Your task to perform on an android device: toggle location history Image 0: 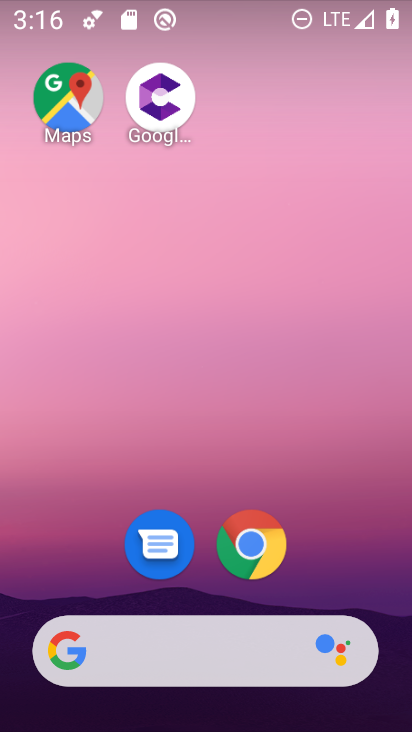
Step 0: drag from (383, 573) to (368, 322)
Your task to perform on an android device: toggle location history Image 1: 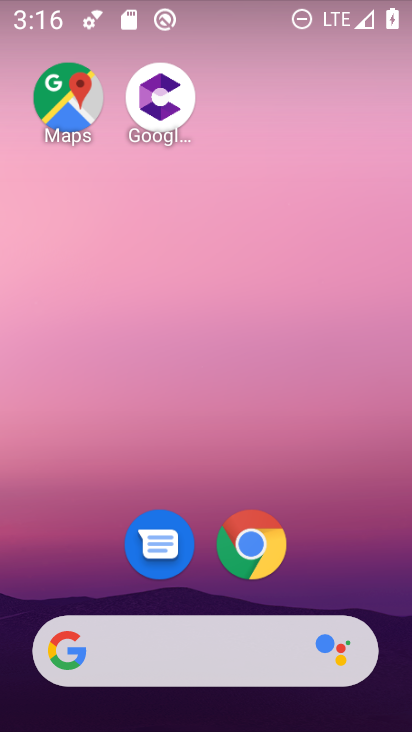
Step 1: drag from (359, 551) to (343, 370)
Your task to perform on an android device: toggle location history Image 2: 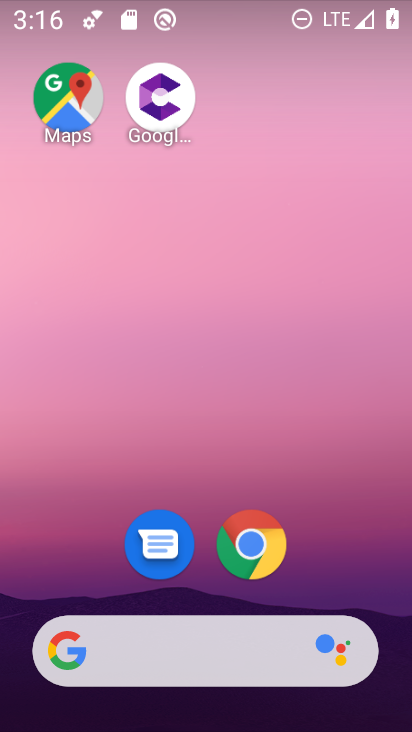
Step 2: drag from (350, 545) to (355, 163)
Your task to perform on an android device: toggle location history Image 3: 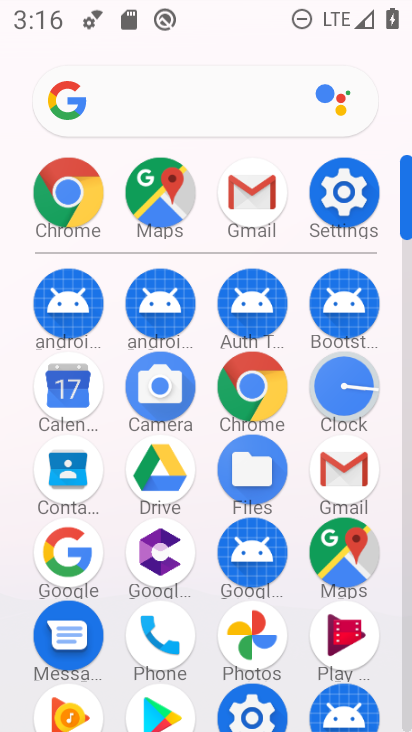
Step 3: click (343, 217)
Your task to perform on an android device: toggle location history Image 4: 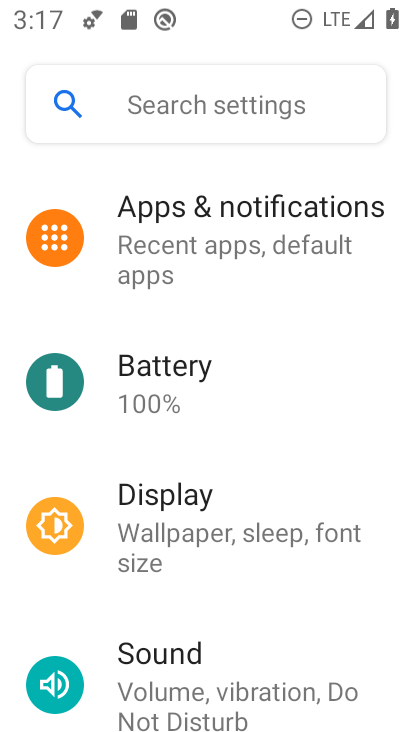
Step 4: drag from (302, 582) to (299, 444)
Your task to perform on an android device: toggle location history Image 5: 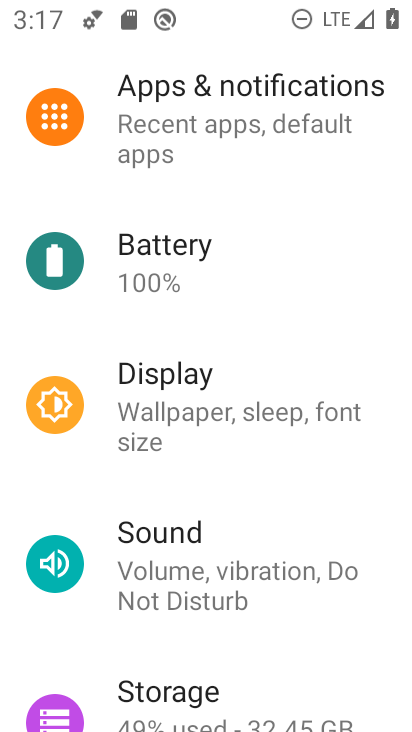
Step 5: drag from (302, 640) to (302, 525)
Your task to perform on an android device: toggle location history Image 6: 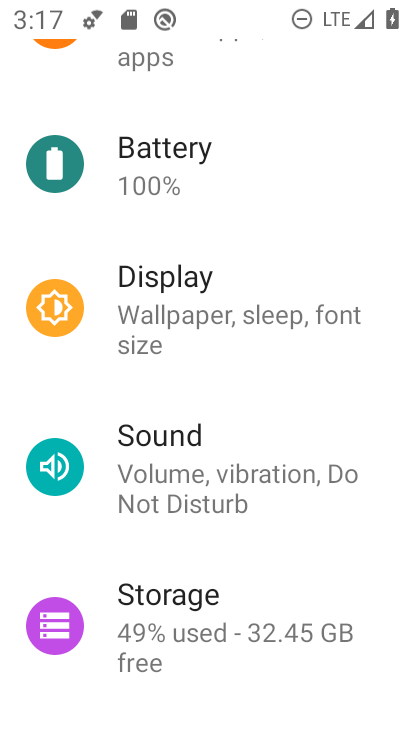
Step 6: drag from (292, 682) to (301, 528)
Your task to perform on an android device: toggle location history Image 7: 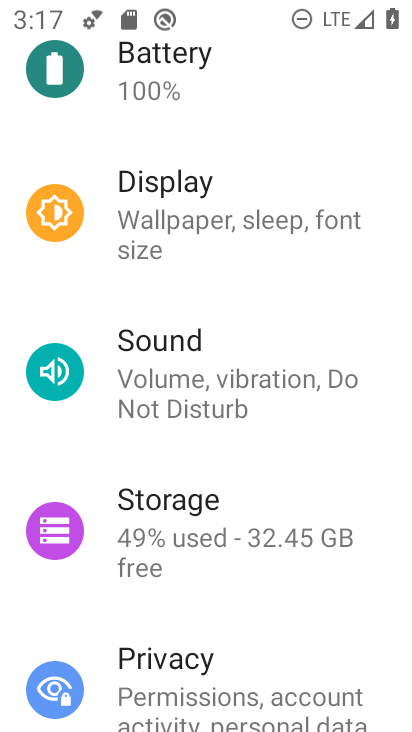
Step 7: drag from (315, 650) to (322, 475)
Your task to perform on an android device: toggle location history Image 8: 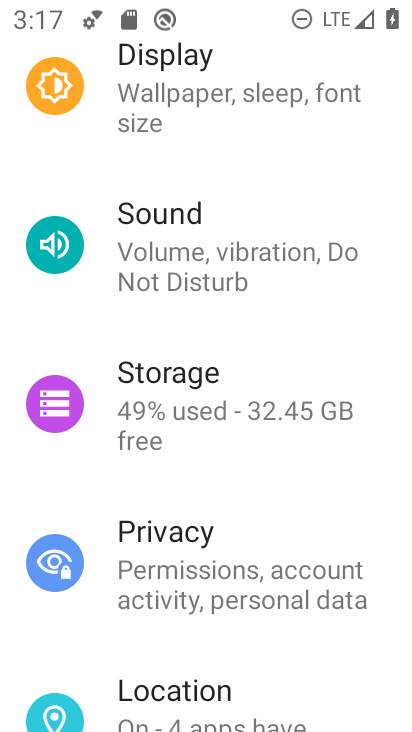
Step 8: drag from (320, 676) to (316, 549)
Your task to perform on an android device: toggle location history Image 9: 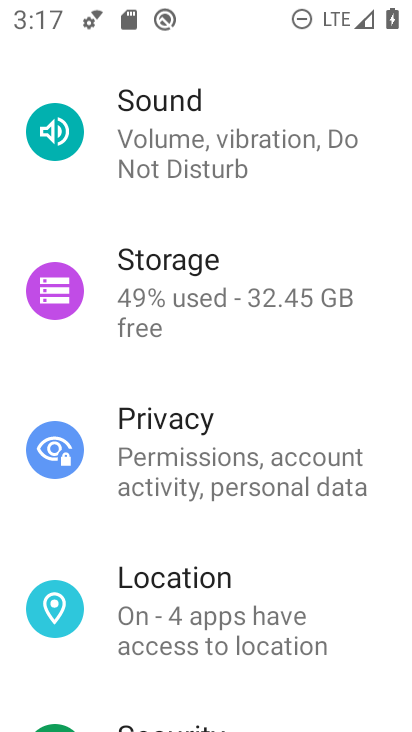
Step 9: drag from (343, 685) to (340, 563)
Your task to perform on an android device: toggle location history Image 10: 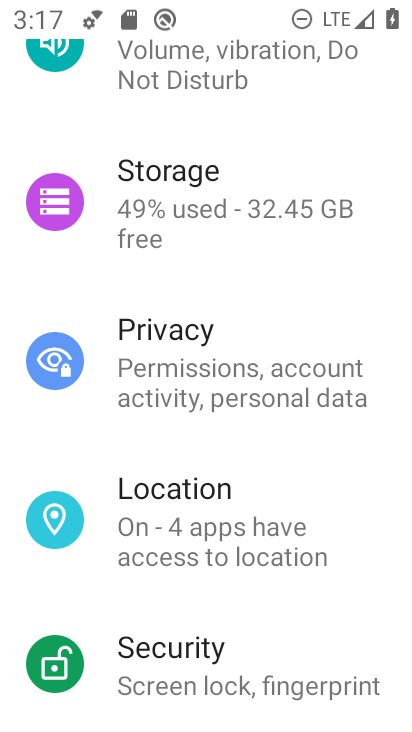
Step 10: drag from (312, 691) to (323, 577)
Your task to perform on an android device: toggle location history Image 11: 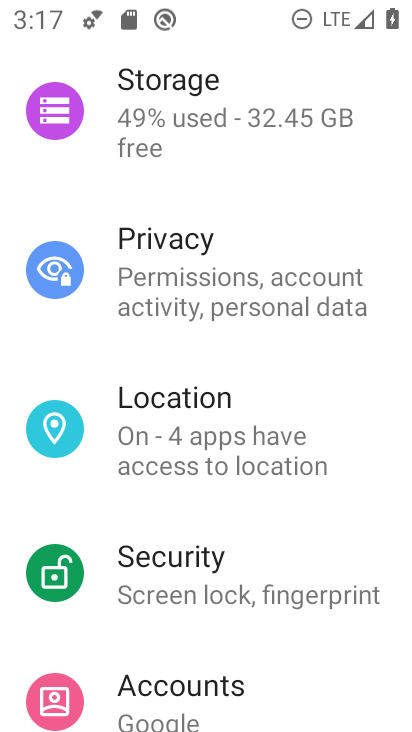
Step 11: drag from (343, 684) to (345, 533)
Your task to perform on an android device: toggle location history Image 12: 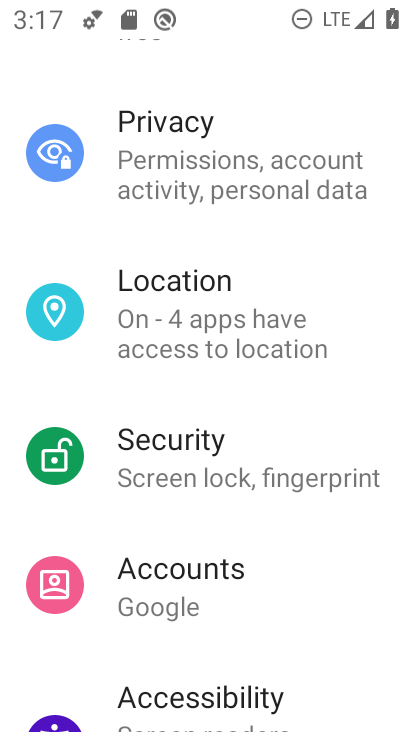
Step 12: drag from (310, 668) to (312, 570)
Your task to perform on an android device: toggle location history Image 13: 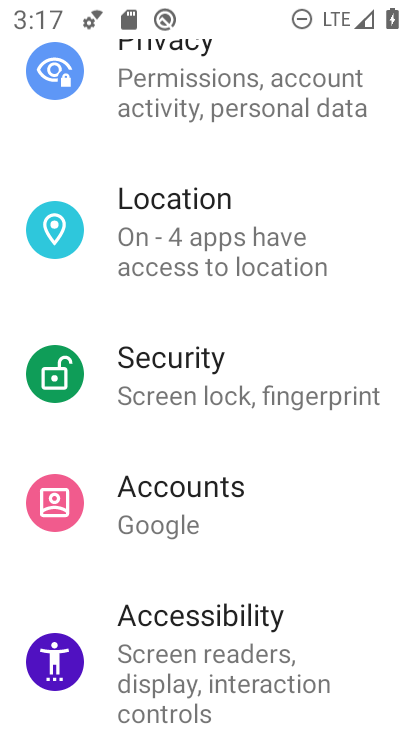
Step 13: drag from (327, 699) to (329, 578)
Your task to perform on an android device: toggle location history Image 14: 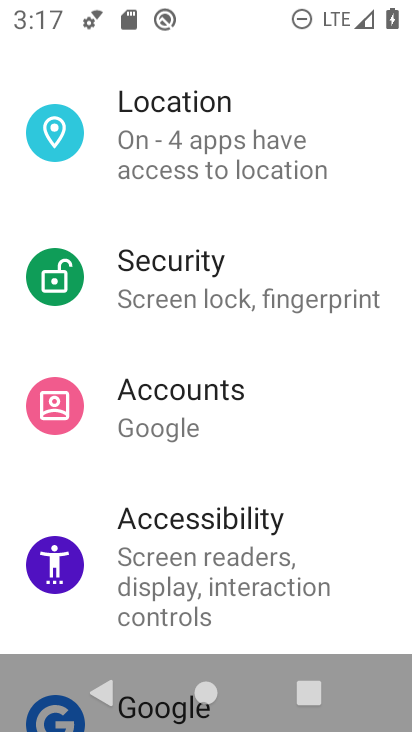
Step 14: drag from (339, 639) to (340, 531)
Your task to perform on an android device: toggle location history Image 15: 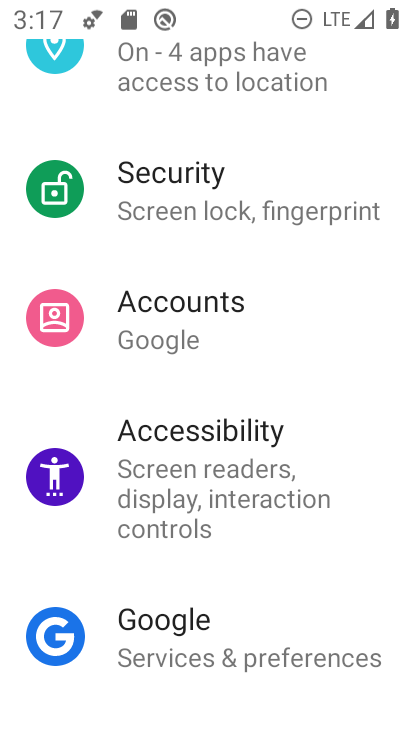
Step 15: drag from (349, 341) to (359, 415)
Your task to perform on an android device: toggle location history Image 16: 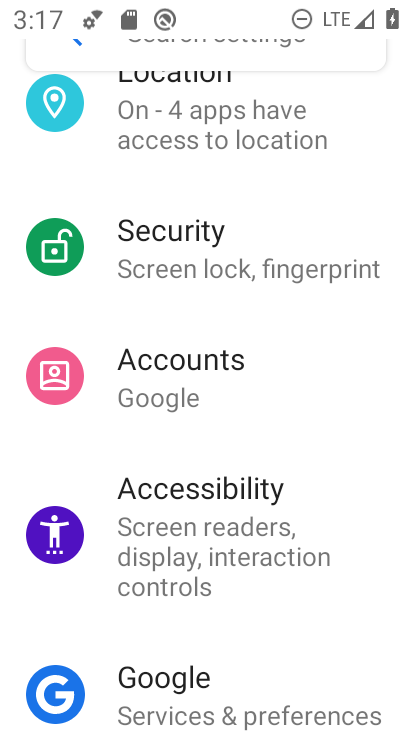
Step 16: click (250, 139)
Your task to perform on an android device: toggle location history Image 17: 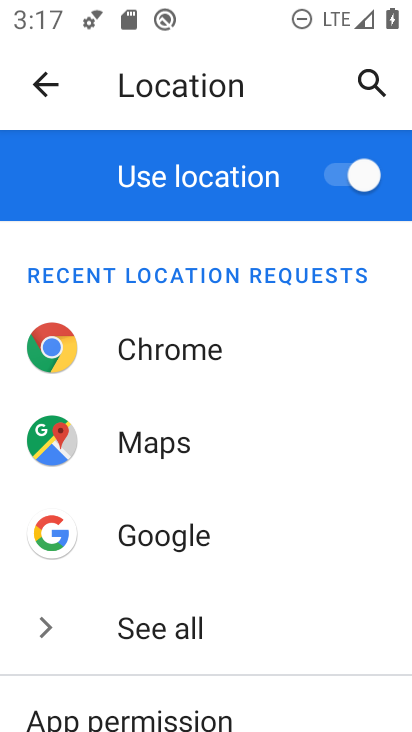
Step 17: drag from (306, 656) to (308, 520)
Your task to perform on an android device: toggle location history Image 18: 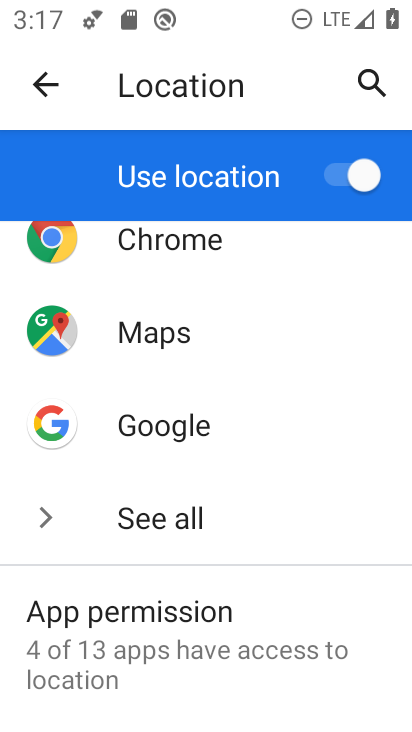
Step 18: drag from (307, 669) to (307, 565)
Your task to perform on an android device: toggle location history Image 19: 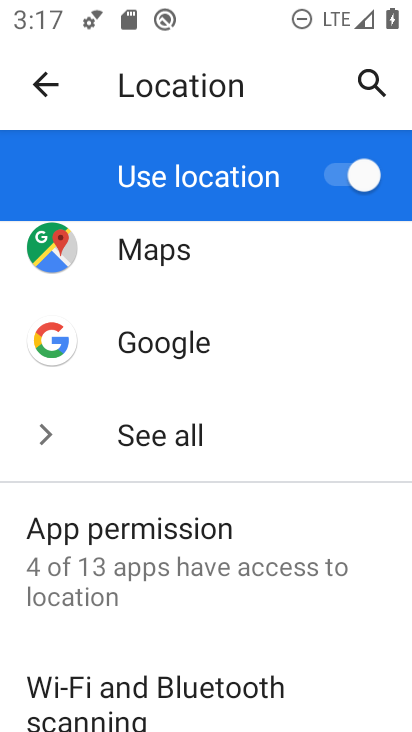
Step 19: drag from (321, 683) to (326, 578)
Your task to perform on an android device: toggle location history Image 20: 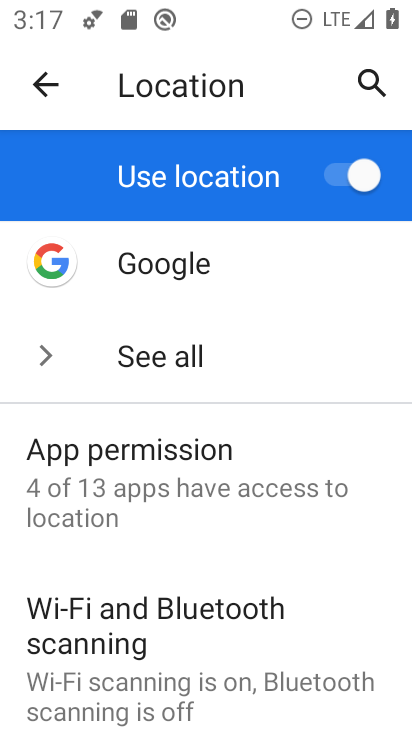
Step 20: drag from (339, 711) to (339, 582)
Your task to perform on an android device: toggle location history Image 21: 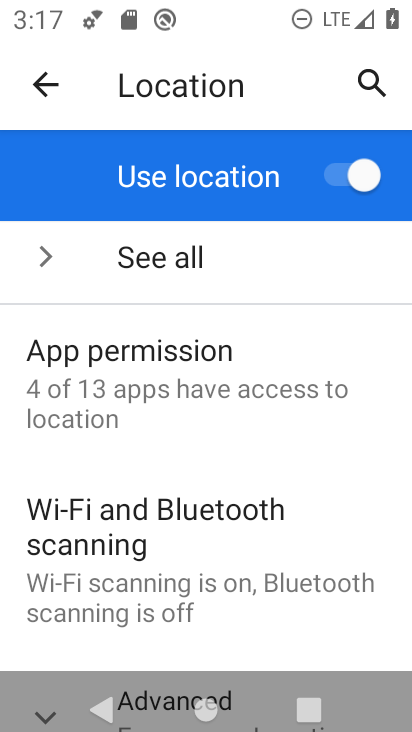
Step 21: drag from (322, 614) to (327, 510)
Your task to perform on an android device: toggle location history Image 22: 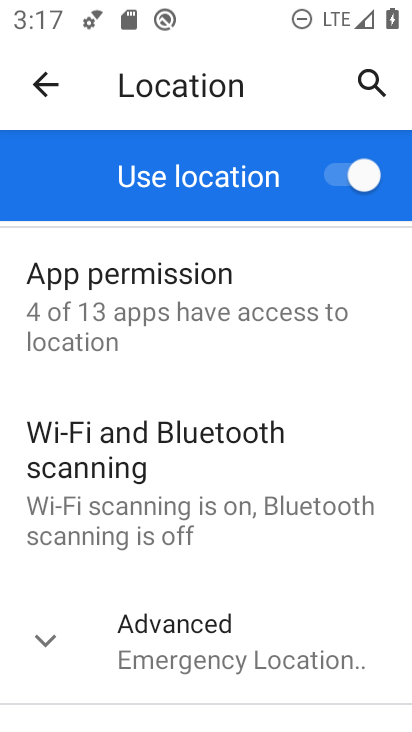
Step 22: drag from (315, 601) to (313, 489)
Your task to perform on an android device: toggle location history Image 23: 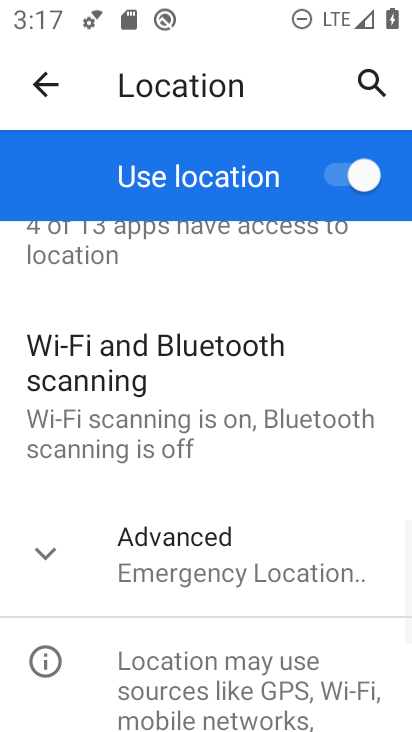
Step 23: click (286, 598)
Your task to perform on an android device: toggle location history Image 24: 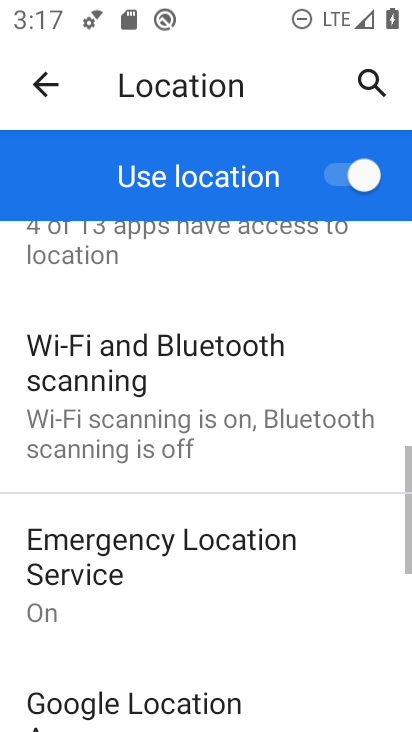
Step 24: drag from (279, 638) to (278, 509)
Your task to perform on an android device: toggle location history Image 25: 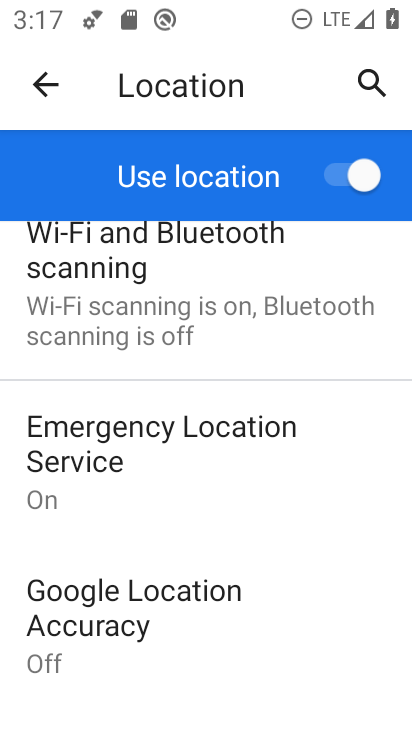
Step 25: drag from (263, 657) to (268, 537)
Your task to perform on an android device: toggle location history Image 26: 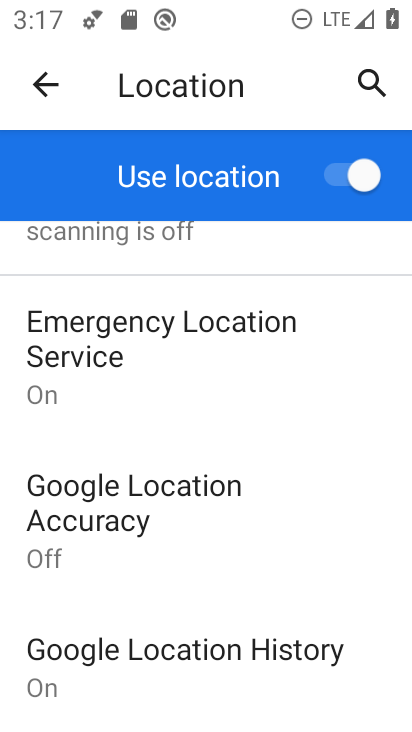
Step 26: drag from (247, 672) to (247, 546)
Your task to perform on an android device: toggle location history Image 27: 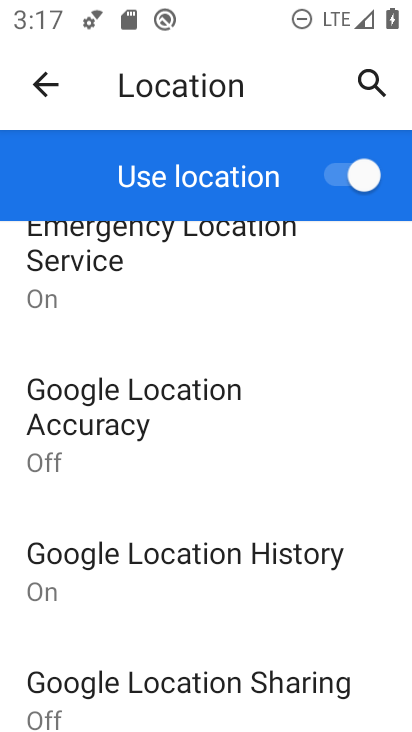
Step 27: click (241, 560)
Your task to perform on an android device: toggle location history Image 28: 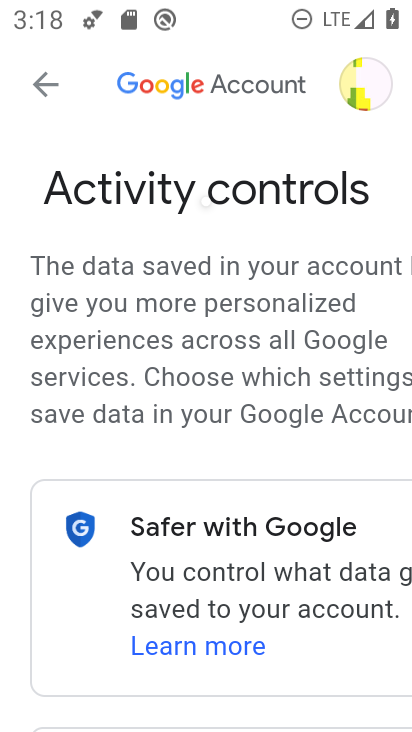
Step 28: drag from (266, 529) to (266, 407)
Your task to perform on an android device: toggle location history Image 29: 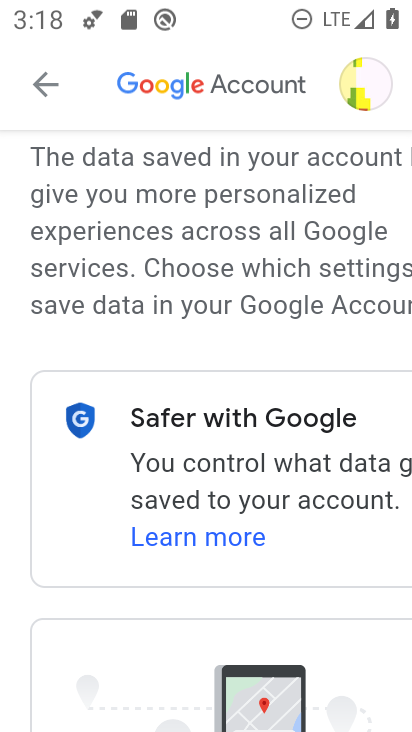
Step 29: drag from (260, 494) to (260, 426)
Your task to perform on an android device: toggle location history Image 30: 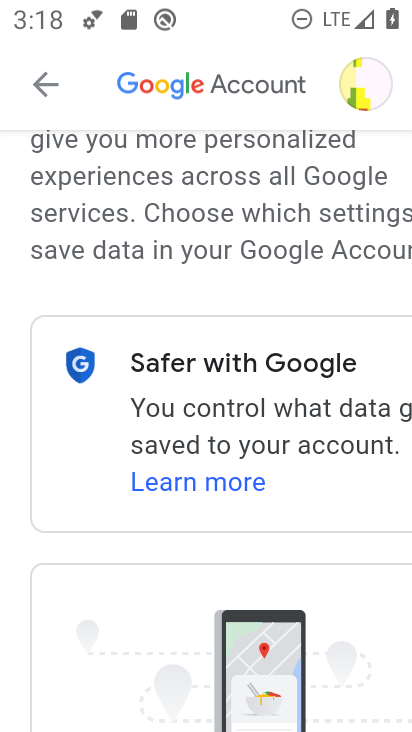
Step 30: drag from (184, 616) to (187, 468)
Your task to perform on an android device: toggle location history Image 31: 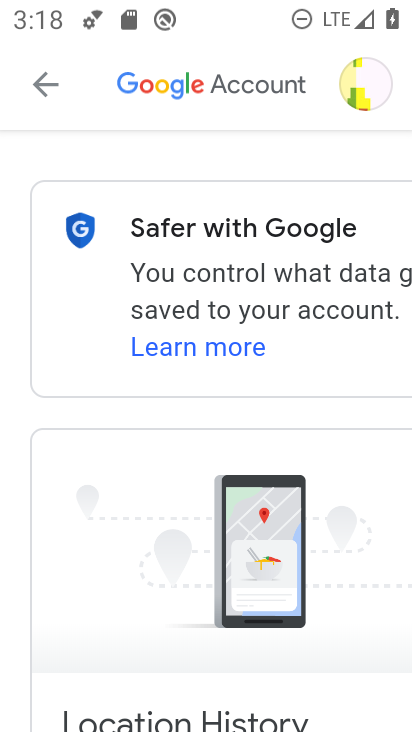
Step 31: drag from (157, 656) to (162, 492)
Your task to perform on an android device: toggle location history Image 32: 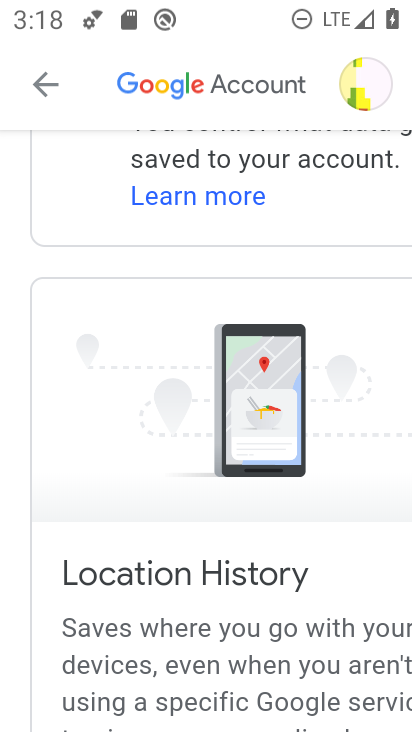
Step 32: drag from (179, 647) to (174, 504)
Your task to perform on an android device: toggle location history Image 33: 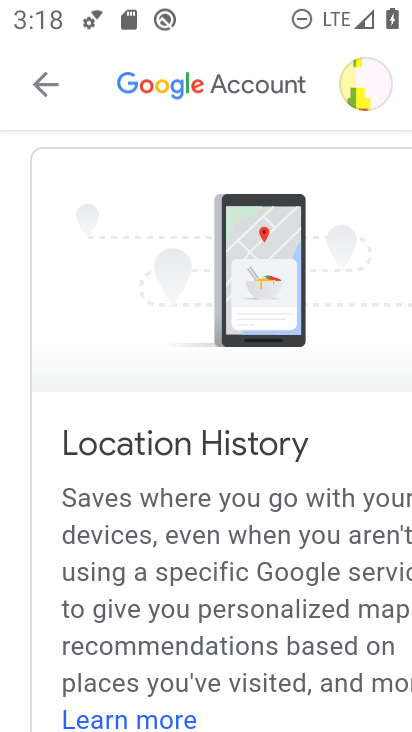
Step 33: drag from (201, 668) to (210, 509)
Your task to perform on an android device: toggle location history Image 34: 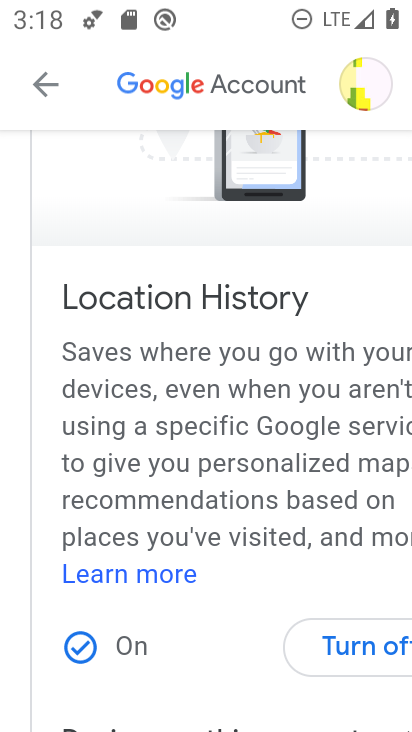
Step 34: click (355, 641)
Your task to perform on an android device: toggle location history Image 35: 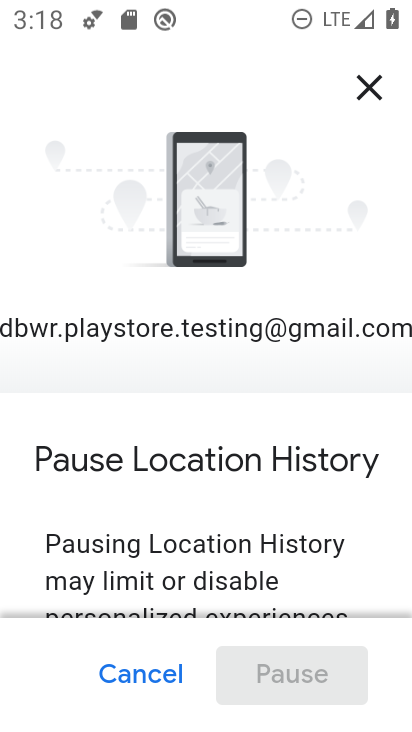
Step 35: drag from (319, 583) to (326, 425)
Your task to perform on an android device: toggle location history Image 36: 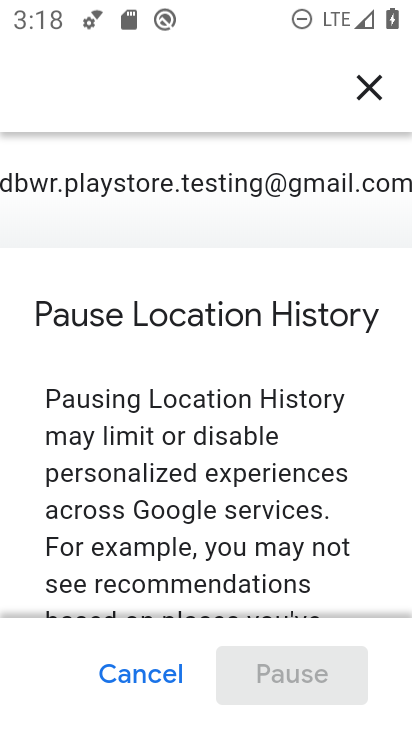
Step 36: drag from (339, 584) to (329, 465)
Your task to perform on an android device: toggle location history Image 37: 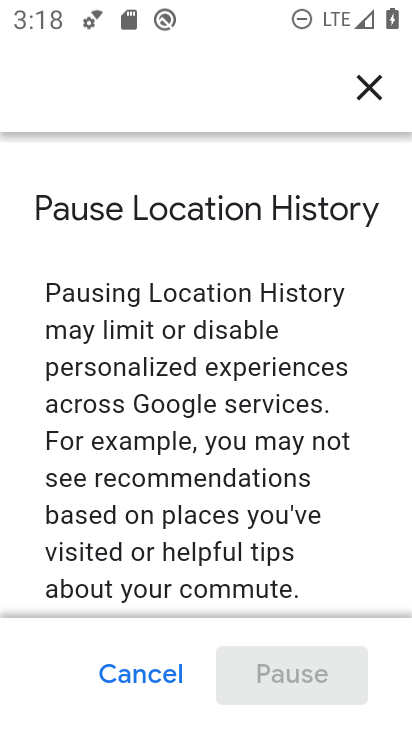
Step 37: drag from (320, 582) to (320, 462)
Your task to perform on an android device: toggle location history Image 38: 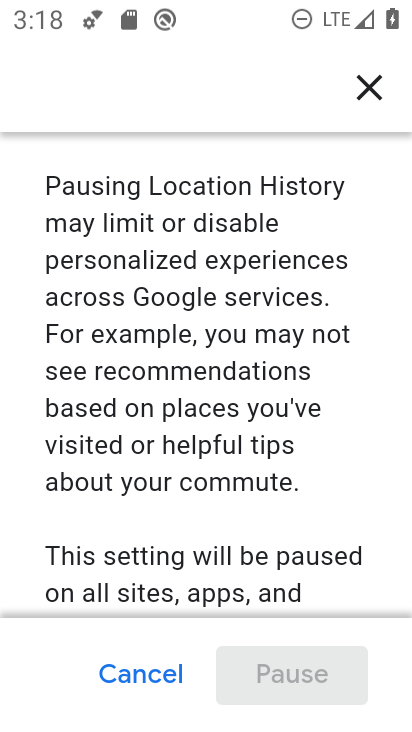
Step 38: drag from (321, 594) to (319, 483)
Your task to perform on an android device: toggle location history Image 39: 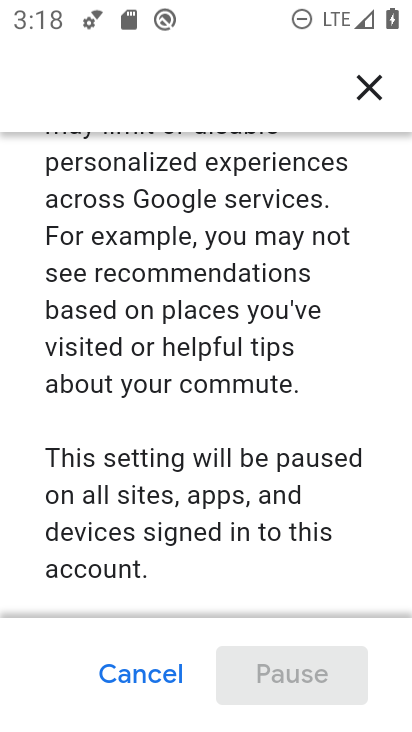
Step 39: drag from (326, 589) to (326, 479)
Your task to perform on an android device: toggle location history Image 40: 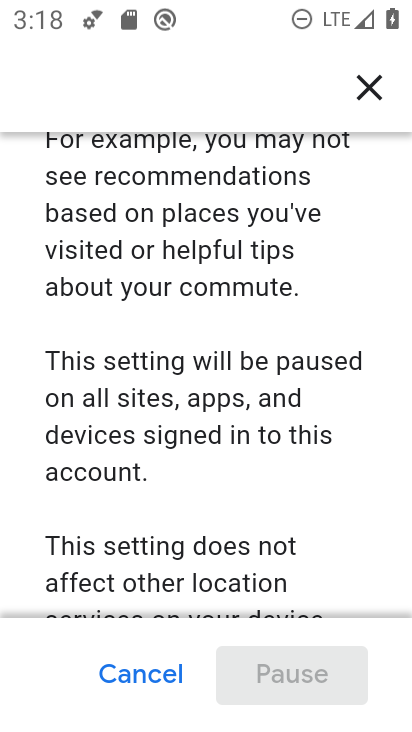
Step 40: drag from (337, 601) to (331, 488)
Your task to perform on an android device: toggle location history Image 41: 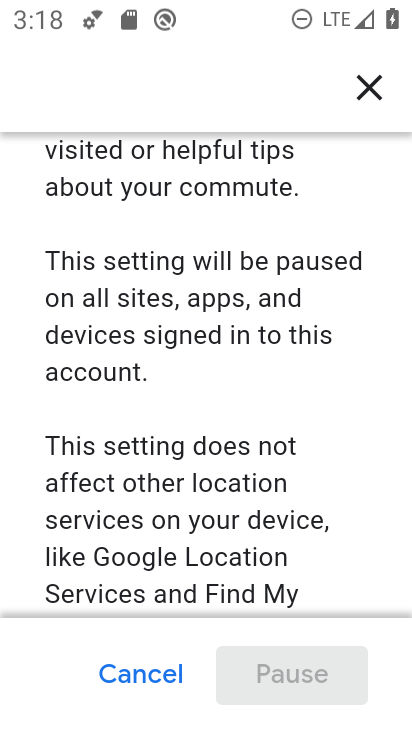
Step 41: drag from (329, 585) to (329, 484)
Your task to perform on an android device: toggle location history Image 42: 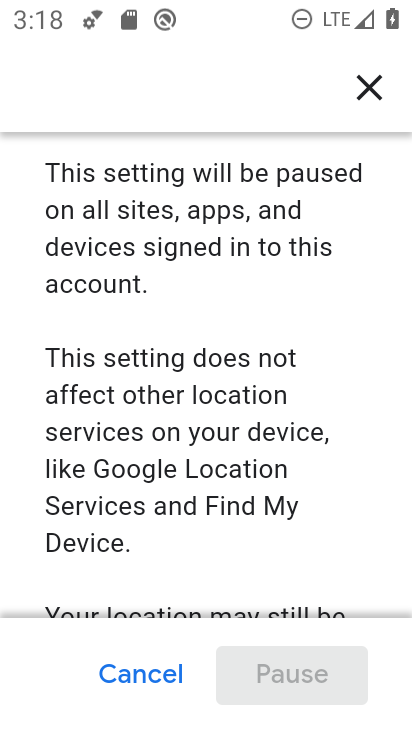
Step 42: drag from (332, 562) to (333, 459)
Your task to perform on an android device: toggle location history Image 43: 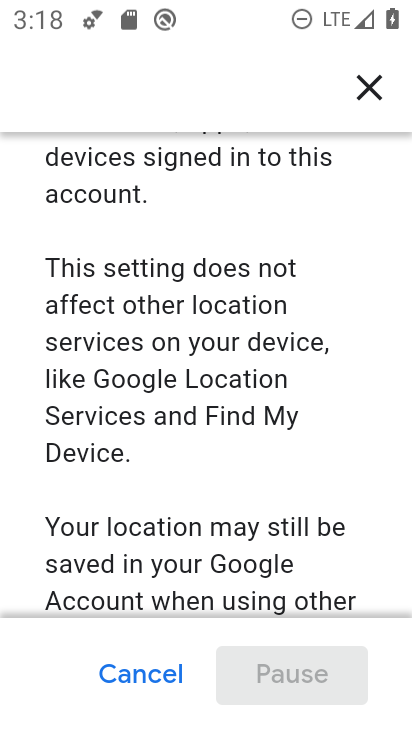
Step 43: drag from (328, 563) to (333, 462)
Your task to perform on an android device: toggle location history Image 44: 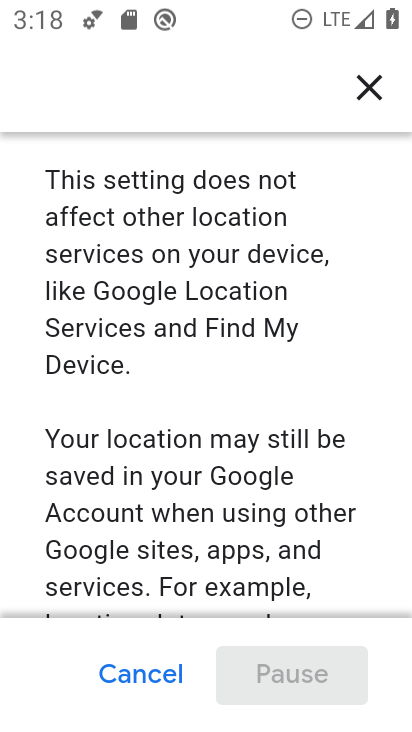
Step 44: drag from (329, 575) to (337, 469)
Your task to perform on an android device: toggle location history Image 45: 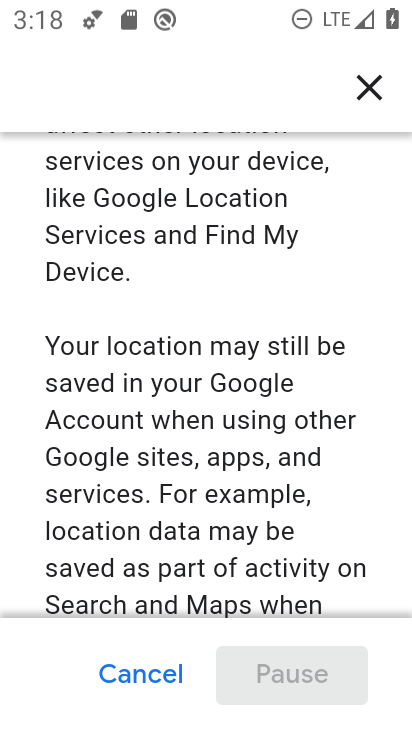
Step 45: drag from (320, 594) to (323, 503)
Your task to perform on an android device: toggle location history Image 46: 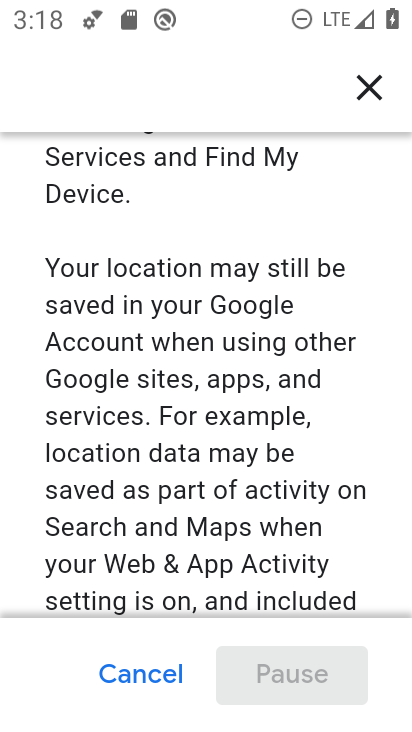
Step 46: drag from (347, 595) to (349, 508)
Your task to perform on an android device: toggle location history Image 47: 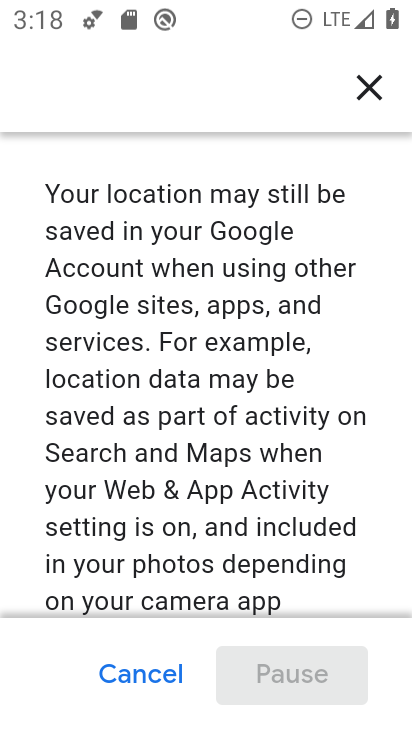
Step 47: drag from (368, 592) to (371, 496)
Your task to perform on an android device: toggle location history Image 48: 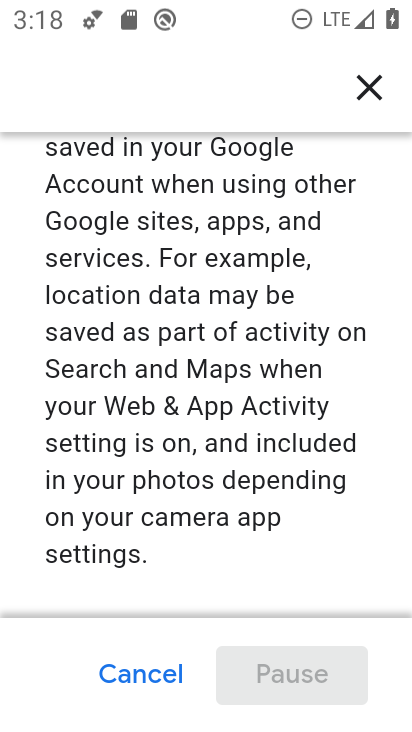
Step 48: drag from (350, 575) to (354, 494)
Your task to perform on an android device: toggle location history Image 49: 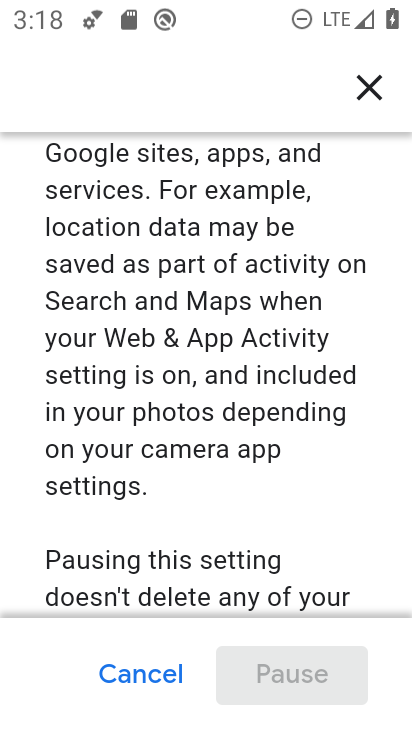
Step 49: drag from (362, 537) to (368, 441)
Your task to perform on an android device: toggle location history Image 50: 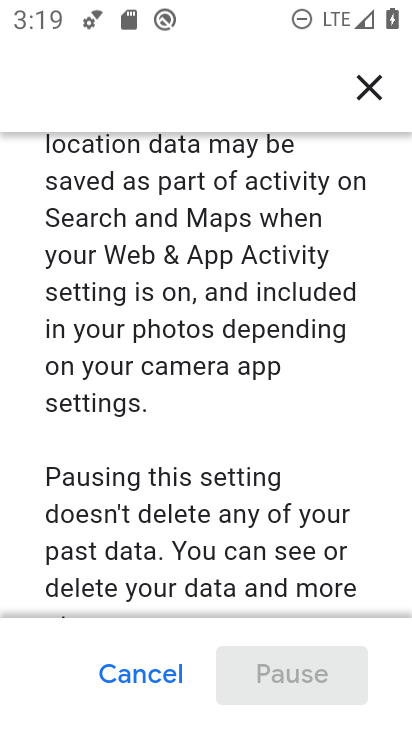
Step 50: drag from (372, 554) to (376, 445)
Your task to perform on an android device: toggle location history Image 51: 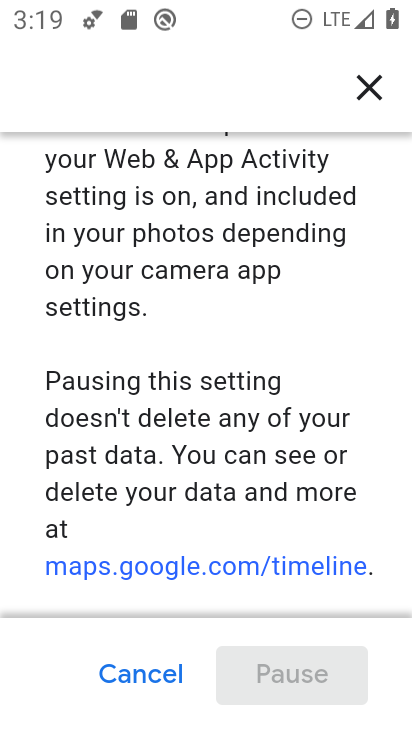
Step 51: drag from (382, 588) to (378, 429)
Your task to perform on an android device: toggle location history Image 52: 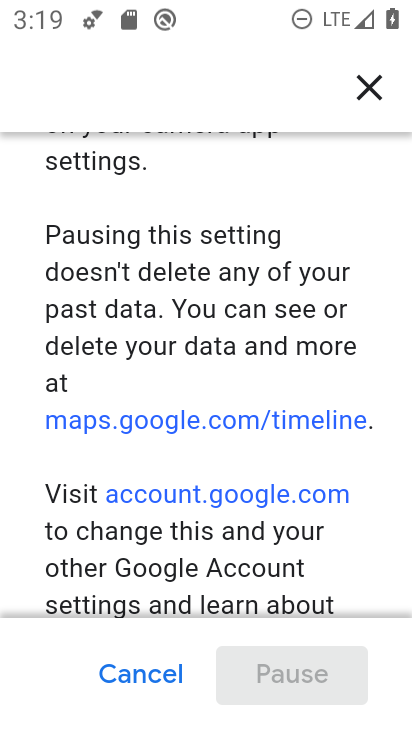
Step 52: drag from (365, 565) to (364, 452)
Your task to perform on an android device: toggle location history Image 53: 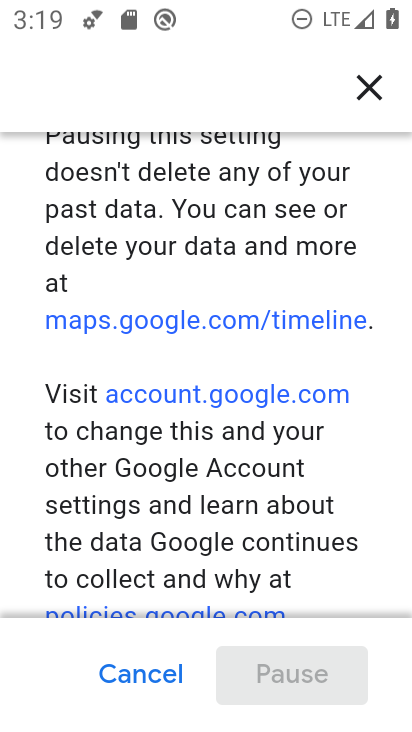
Step 53: drag from (377, 591) to (365, 431)
Your task to perform on an android device: toggle location history Image 54: 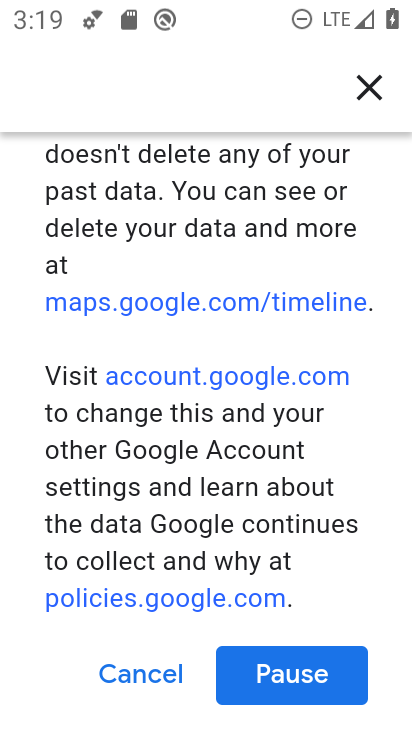
Step 54: click (301, 688)
Your task to perform on an android device: toggle location history Image 55: 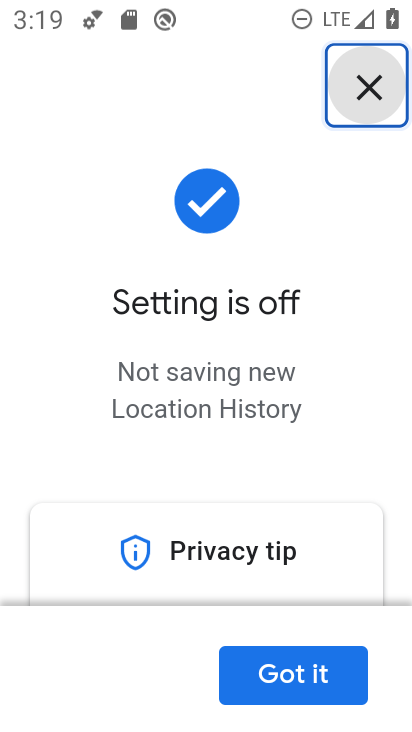
Step 55: task complete